Your task to perform on an android device: Search for "sony triple a" on walmart.com, select the first entry, add it to the cart, then select checkout. Image 0: 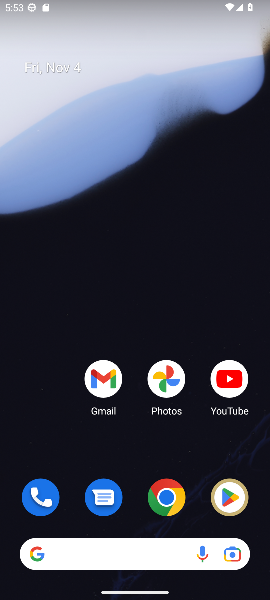
Step 0: click (164, 499)
Your task to perform on an android device: Search for "sony triple a" on walmart.com, select the first entry, add it to the cart, then select checkout. Image 1: 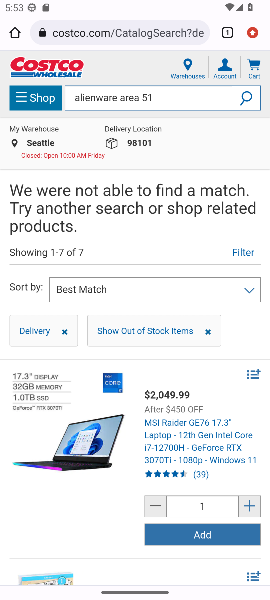
Step 1: click (135, 30)
Your task to perform on an android device: Search for "sony triple a" on walmart.com, select the first entry, add it to the cart, then select checkout. Image 2: 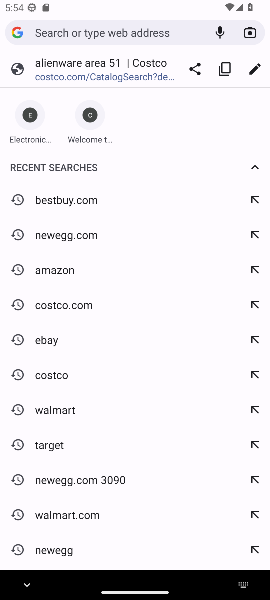
Step 2: click (60, 412)
Your task to perform on an android device: Search for "sony triple a" on walmart.com, select the first entry, add it to the cart, then select checkout. Image 3: 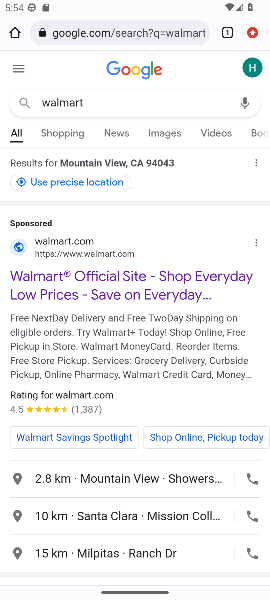
Step 3: drag from (123, 354) to (139, 115)
Your task to perform on an android device: Search for "sony triple a" on walmart.com, select the first entry, add it to the cart, then select checkout. Image 4: 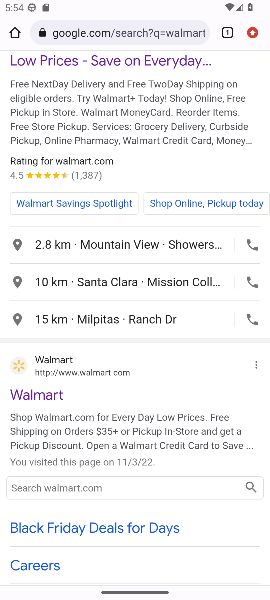
Step 4: click (44, 372)
Your task to perform on an android device: Search for "sony triple a" on walmart.com, select the first entry, add it to the cart, then select checkout. Image 5: 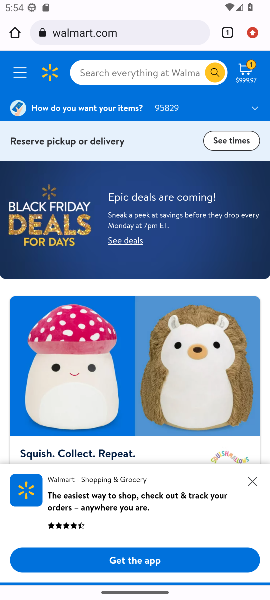
Step 5: click (114, 70)
Your task to perform on an android device: Search for "sony triple a" on walmart.com, select the first entry, add it to the cart, then select checkout. Image 6: 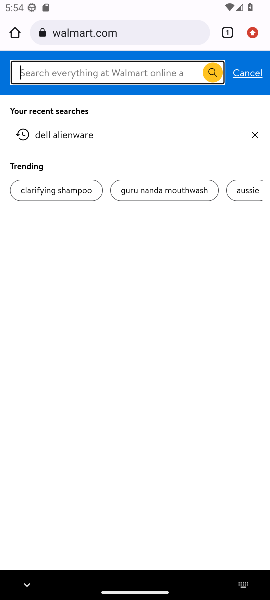
Step 6: type "sony triple a"
Your task to perform on an android device: Search for "sony triple a" on walmart.com, select the first entry, add it to the cart, then select checkout. Image 7: 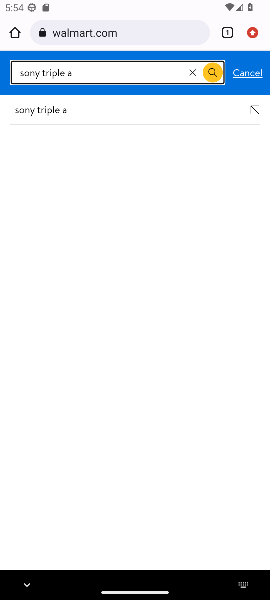
Step 7: click (53, 114)
Your task to perform on an android device: Search for "sony triple a" on walmart.com, select the first entry, add it to the cart, then select checkout. Image 8: 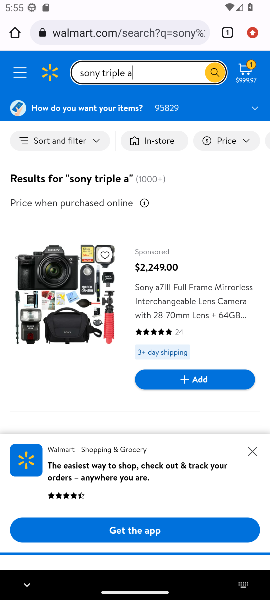
Step 8: task complete